Your task to perform on an android device: toggle wifi Image 0: 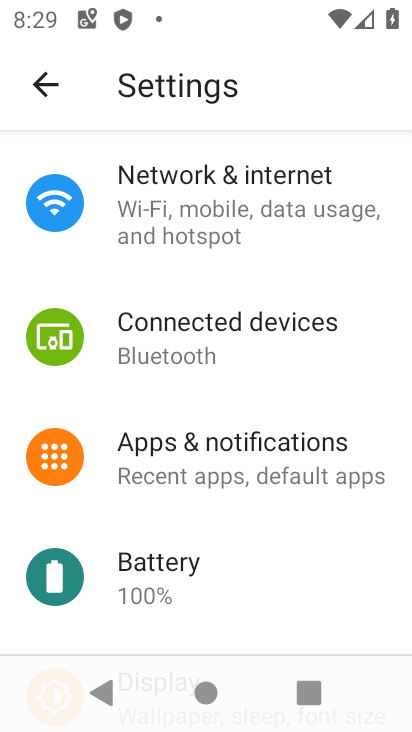
Step 0: click (233, 195)
Your task to perform on an android device: toggle wifi Image 1: 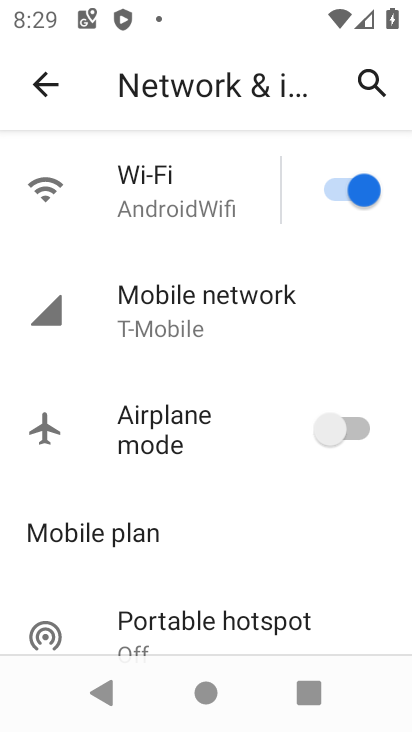
Step 1: click (357, 175)
Your task to perform on an android device: toggle wifi Image 2: 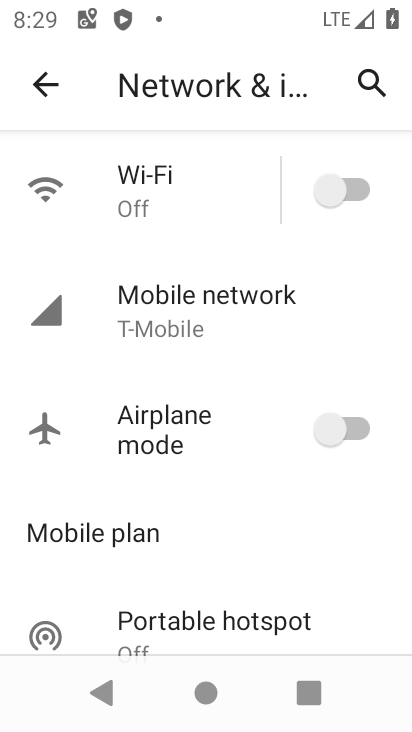
Step 2: task complete